Your task to perform on an android device: Open Amazon Image 0: 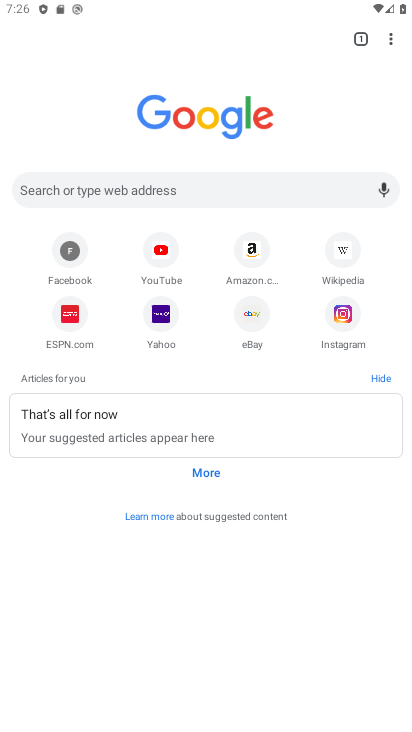
Step 0: press home button
Your task to perform on an android device: Open Amazon Image 1: 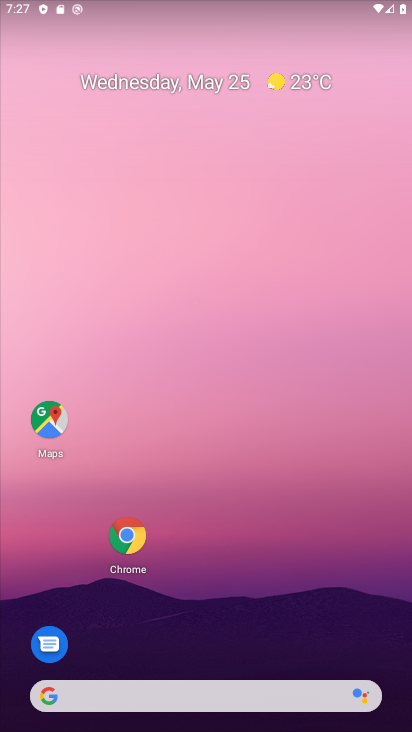
Step 1: click (129, 534)
Your task to perform on an android device: Open Amazon Image 2: 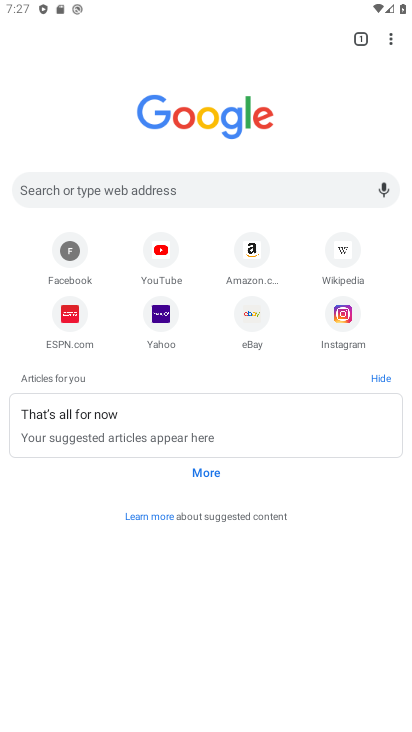
Step 2: click (243, 250)
Your task to perform on an android device: Open Amazon Image 3: 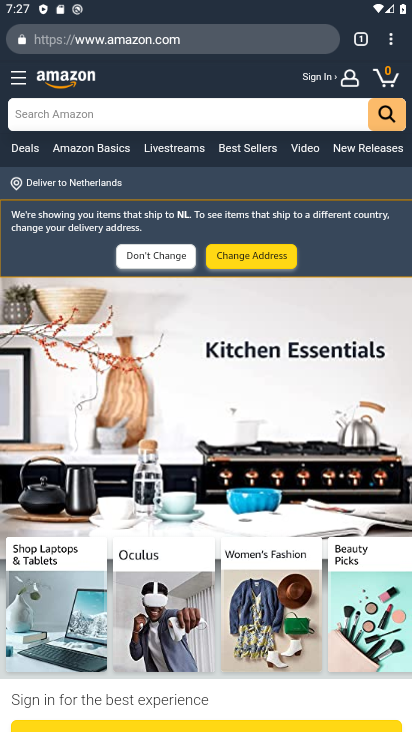
Step 3: task complete